Your task to perform on an android device: Check the news Image 0: 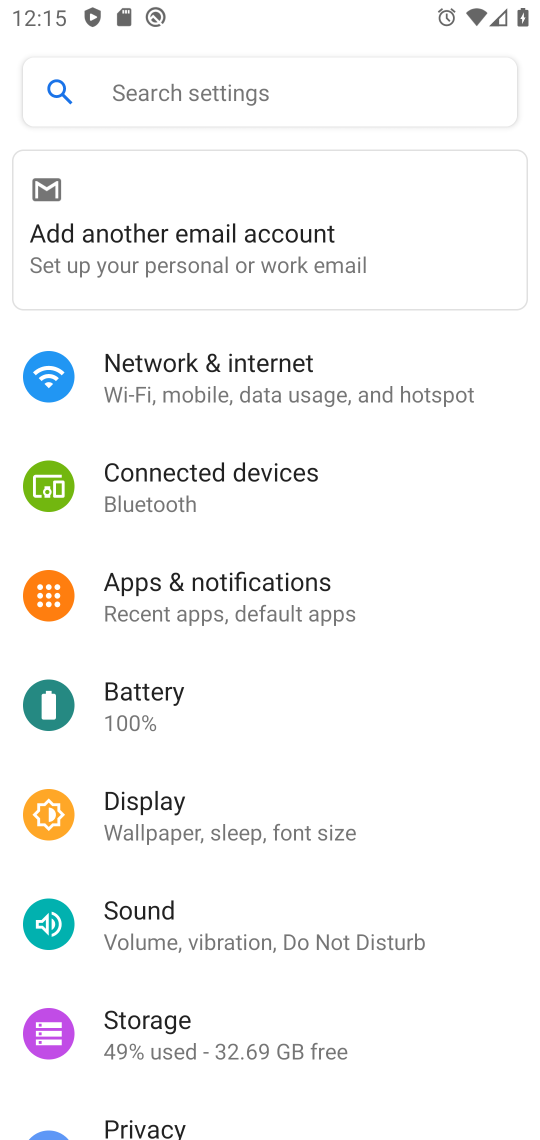
Step 0: press home button
Your task to perform on an android device: Check the news Image 1: 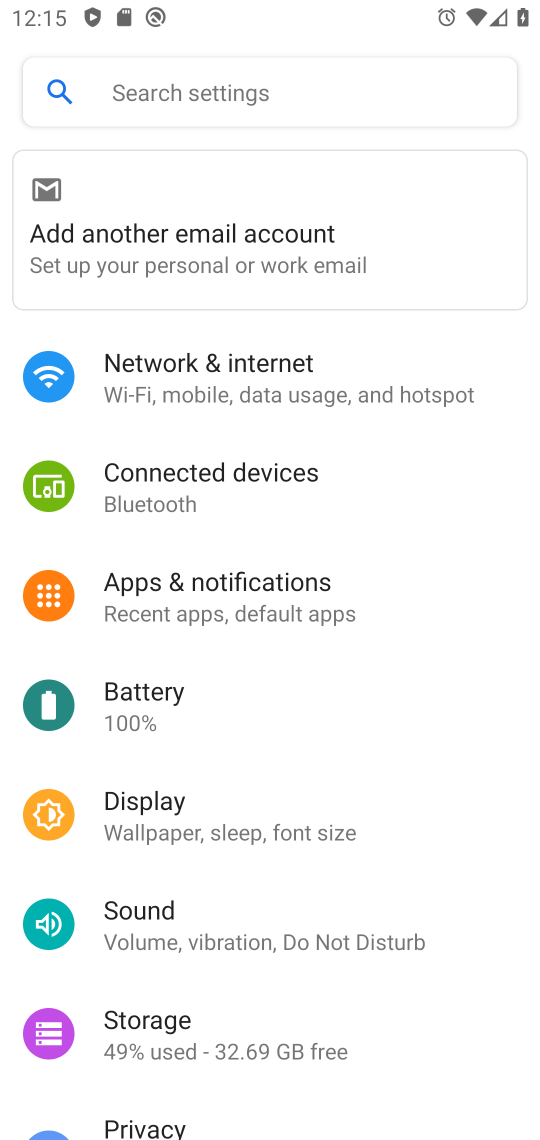
Step 1: press home button
Your task to perform on an android device: Check the news Image 2: 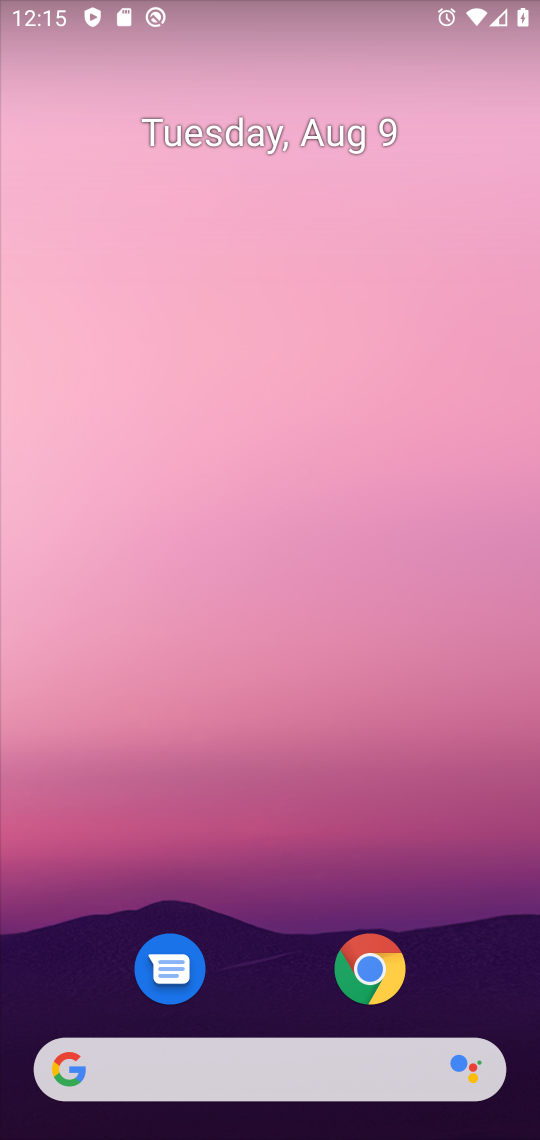
Step 2: drag from (311, 933) to (470, 145)
Your task to perform on an android device: Check the news Image 3: 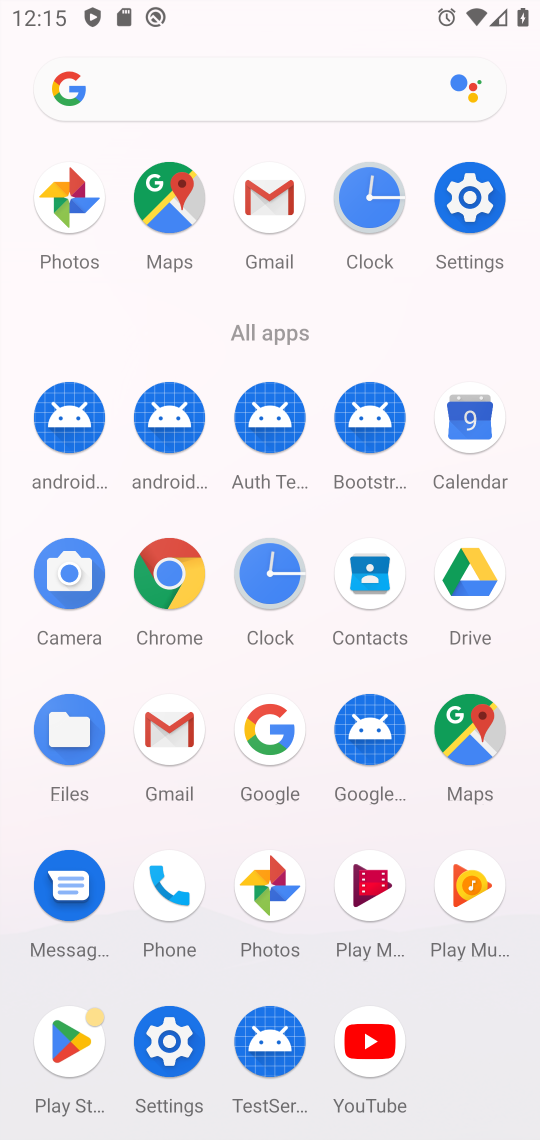
Step 3: click (221, 101)
Your task to perform on an android device: Check the news Image 4: 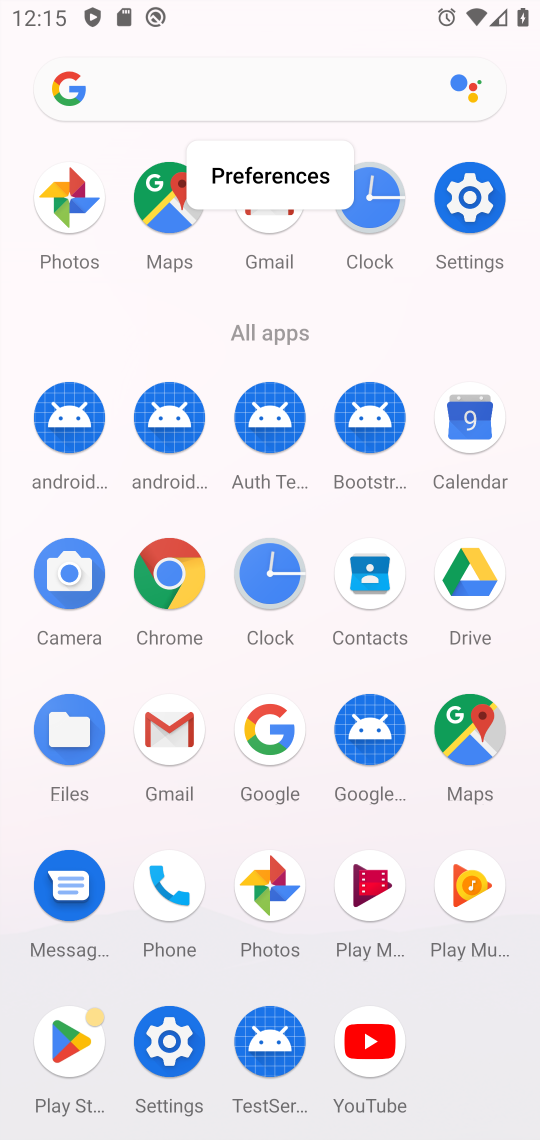
Step 4: click (294, 103)
Your task to perform on an android device: Check the news Image 5: 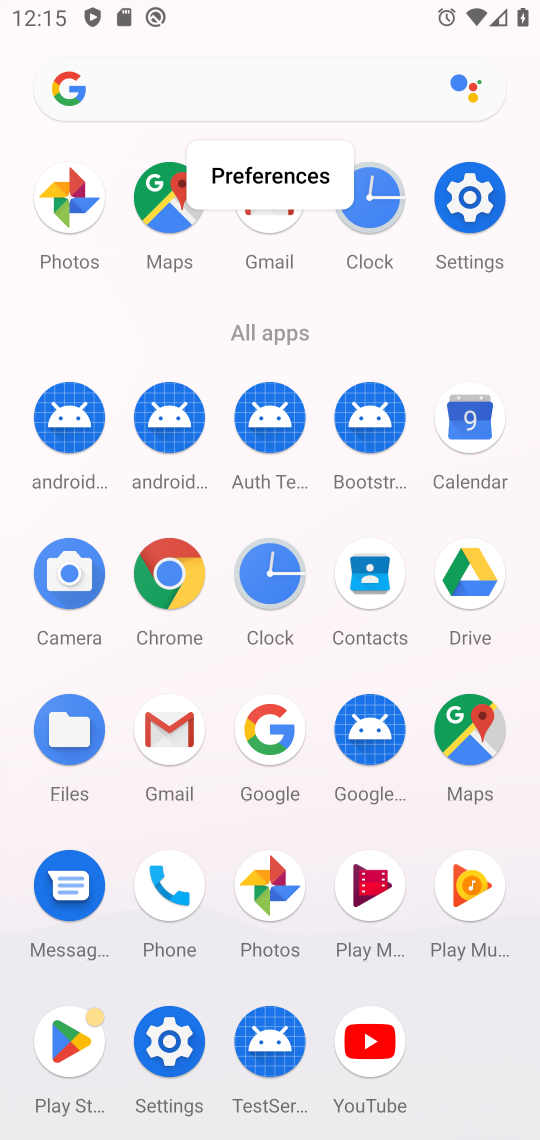
Step 5: click (238, 99)
Your task to perform on an android device: Check the news Image 6: 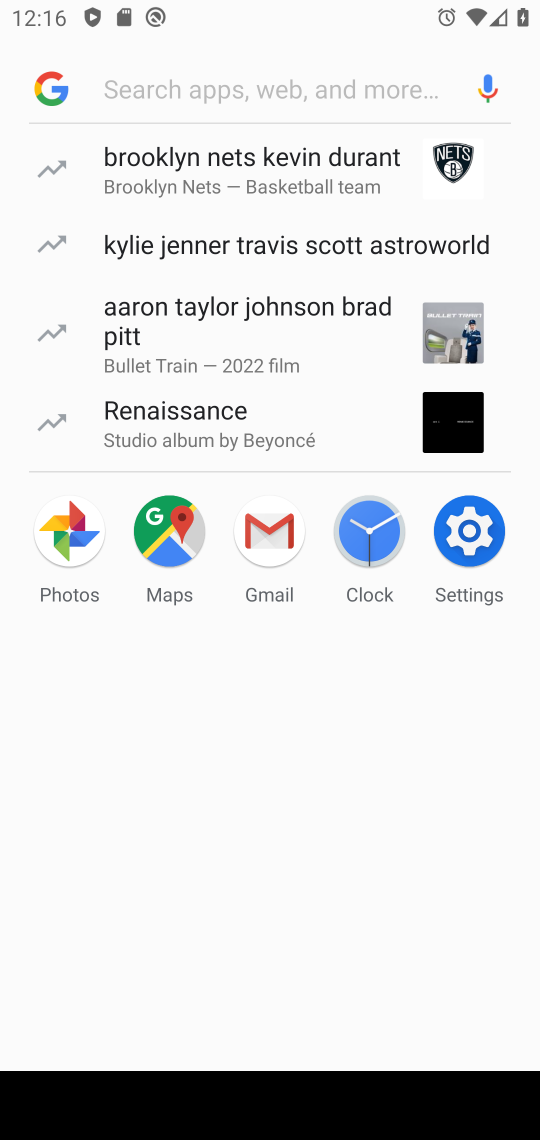
Step 6: type "news"
Your task to perform on an android device: Check the news Image 7: 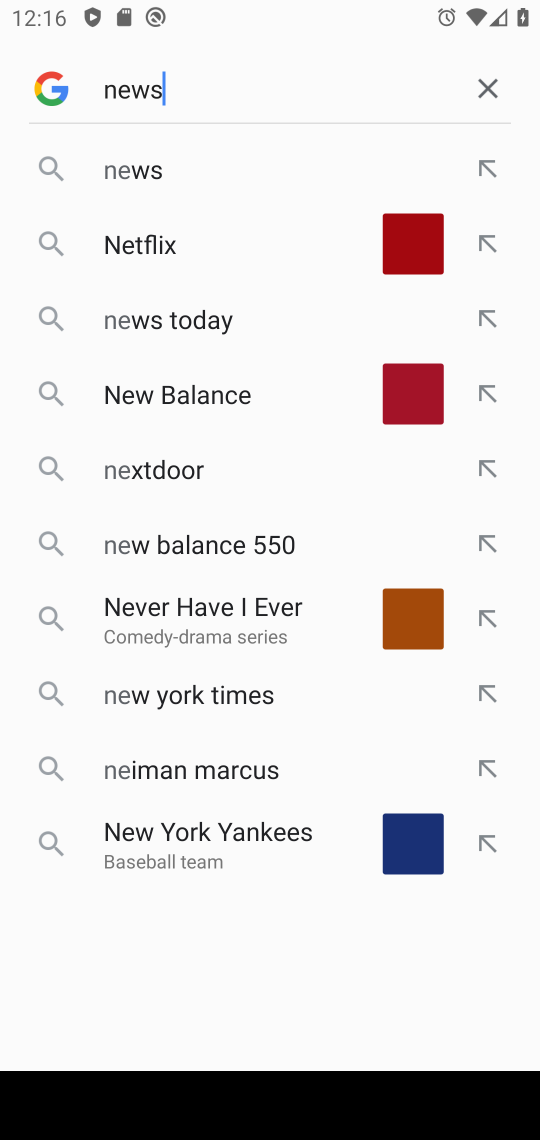
Step 7: type ""
Your task to perform on an android device: Check the news Image 8: 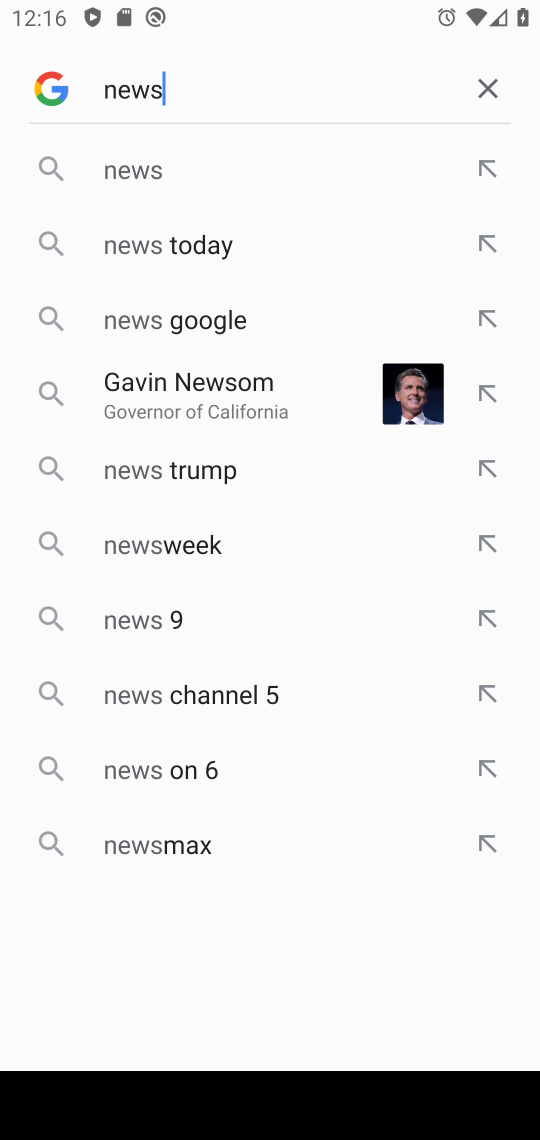
Step 8: click (180, 161)
Your task to perform on an android device: Check the news Image 9: 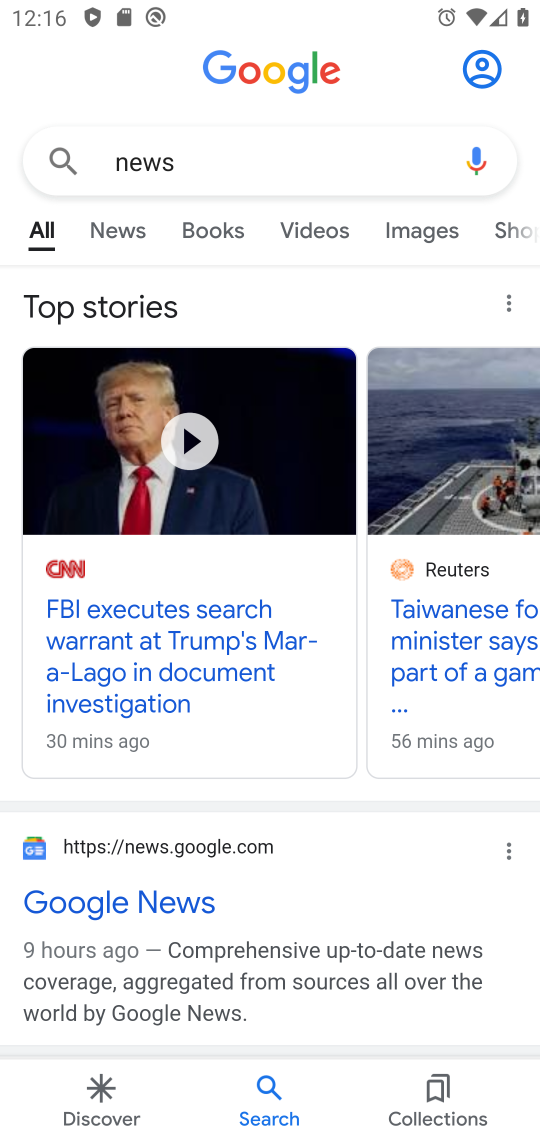
Step 9: task complete